Your task to perform on an android device: turn off location history Image 0: 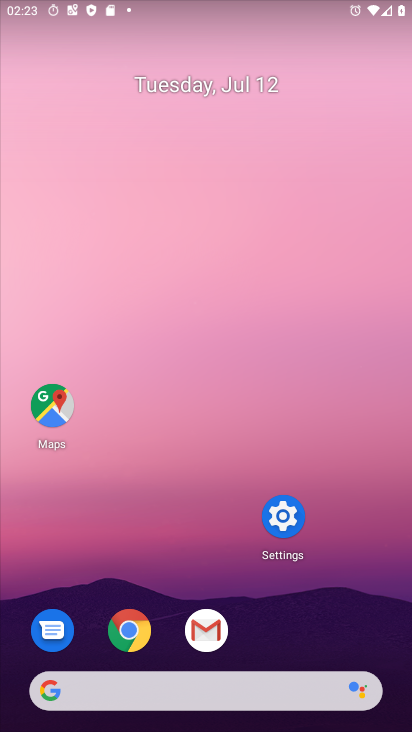
Step 0: click (285, 502)
Your task to perform on an android device: turn off location history Image 1: 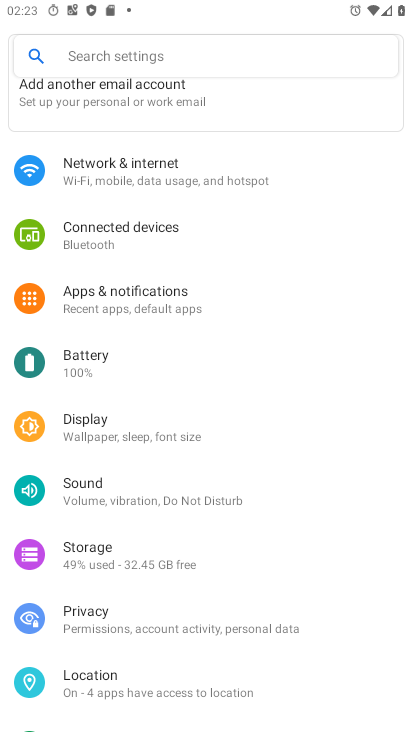
Step 1: click (132, 678)
Your task to perform on an android device: turn off location history Image 2: 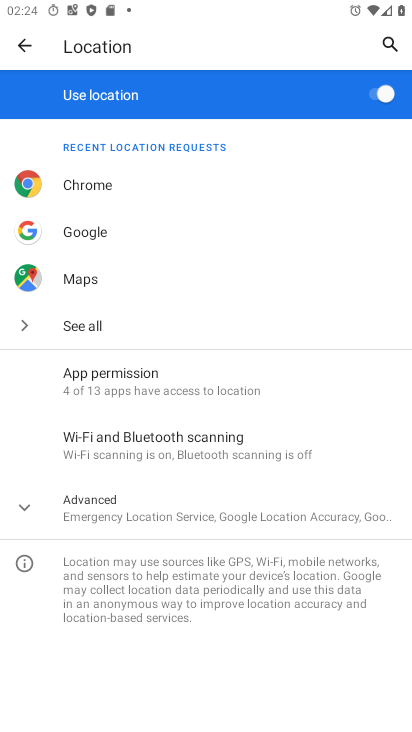
Step 2: click (55, 515)
Your task to perform on an android device: turn off location history Image 3: 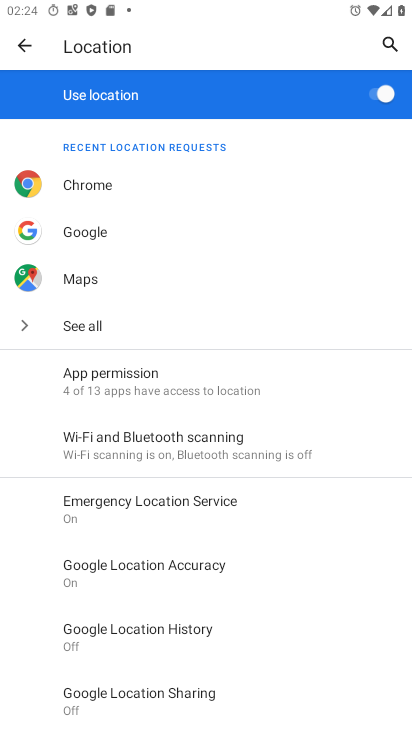
Step 3: click (175, 629)
Your task to perform on an android device: turn off location history Image 4: 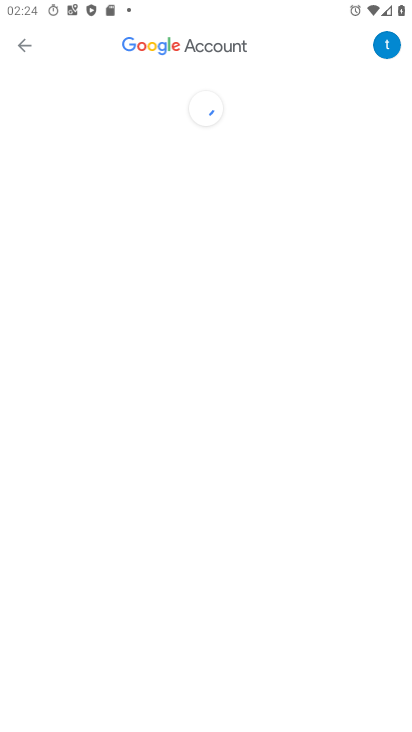
Step 4: task complete